Your task to perform on an android device: Open a new incognito window in Chrome Image 0: 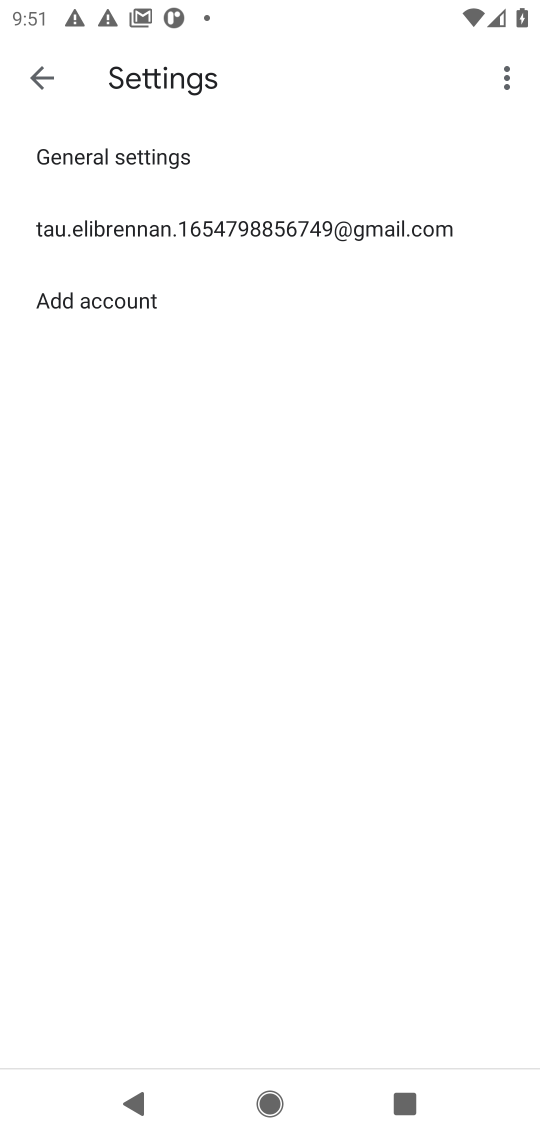
Step 0: press home button
Your task to perform on an android device: Open a new incognito window in Chrome Image 1: 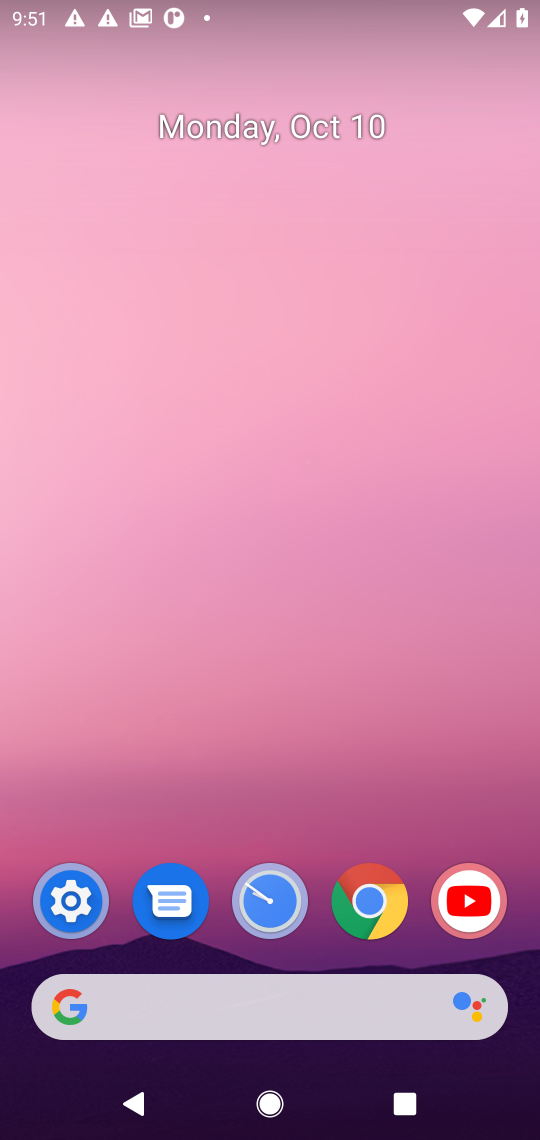
Step 1: drag from (513, 796) to (481, 228)
Your task to perform on an android device: Open a new incognito window in Chrome Image 2: 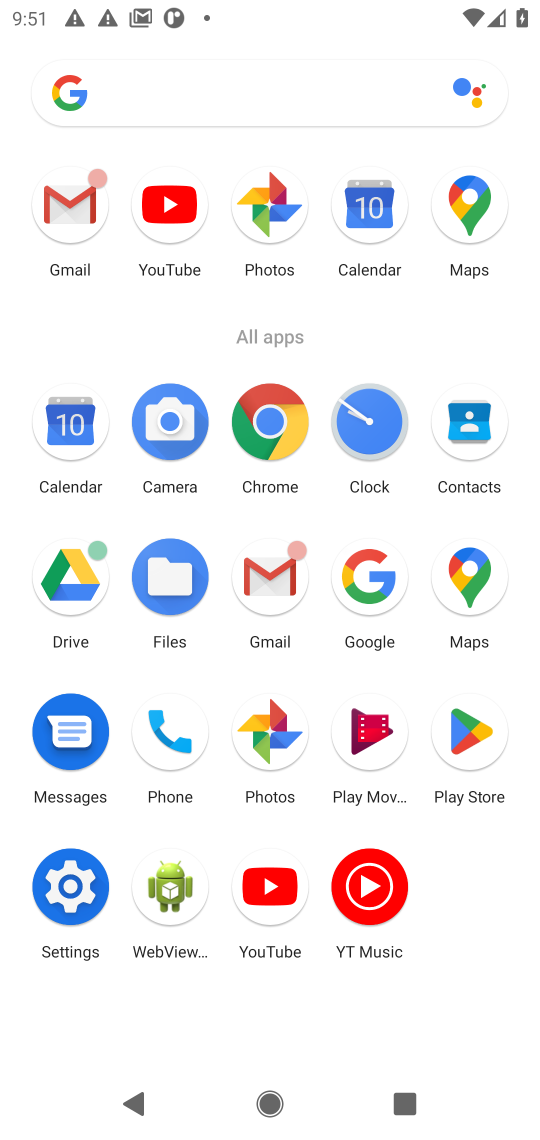
Step 2: click (272, 445)
Your task to perform on an android device: Open a new incognito window in Chrome Image 3: 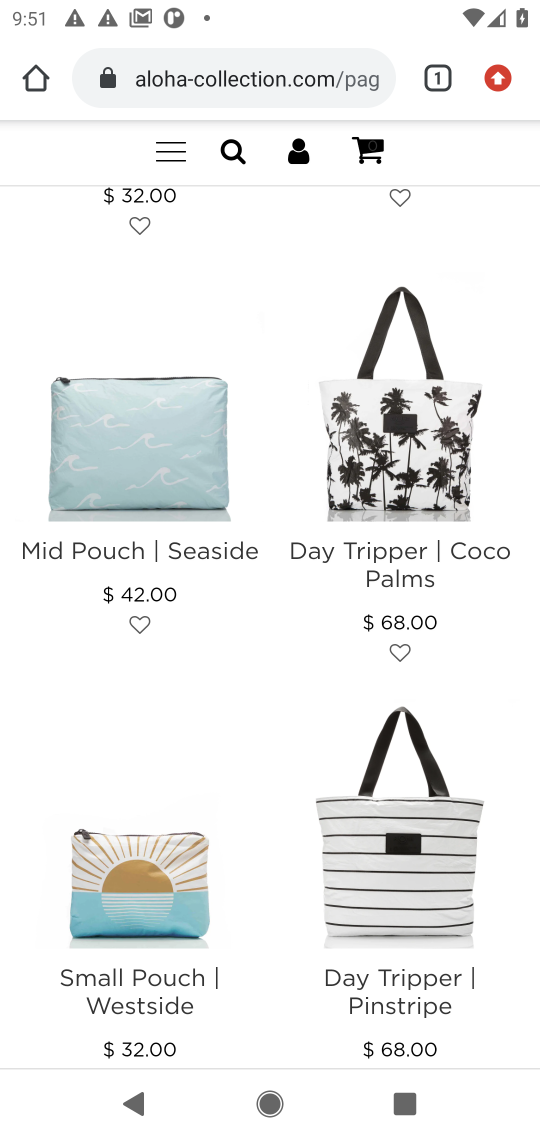
Step 3: click (497, 87)
Your task to perform on an android device: Open a new incognito window in Chrome Image 4: 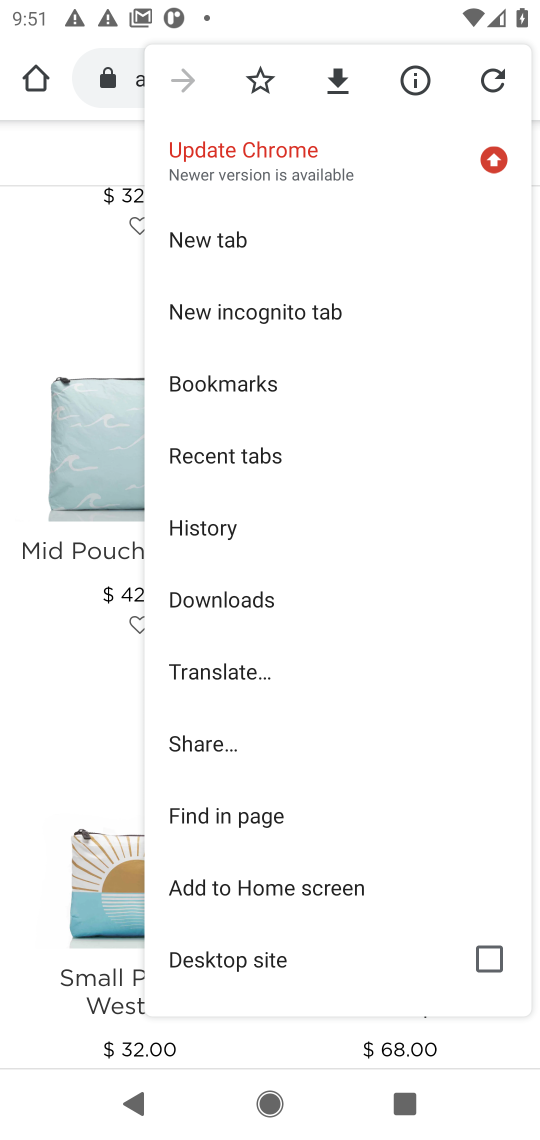
Step 4: click (316, 308)
Your task to perform on an android device: Open a new incognito window in Chrome Image 5: 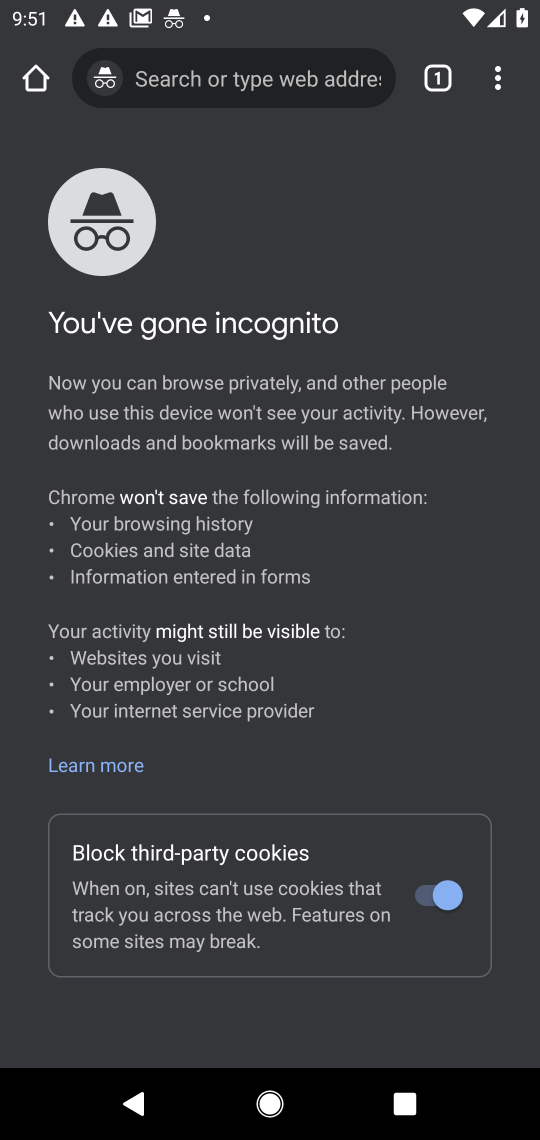
Step 5: task complete